Your task to perform on an android device: Play the last video I watched on Youtube Image 0: 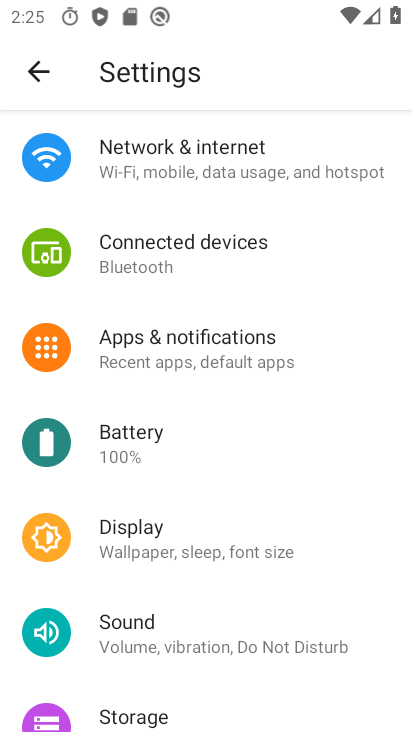
Step 0: press home button
Your task to perform on an android device: Play the last video I watched on Youtube Image 1: 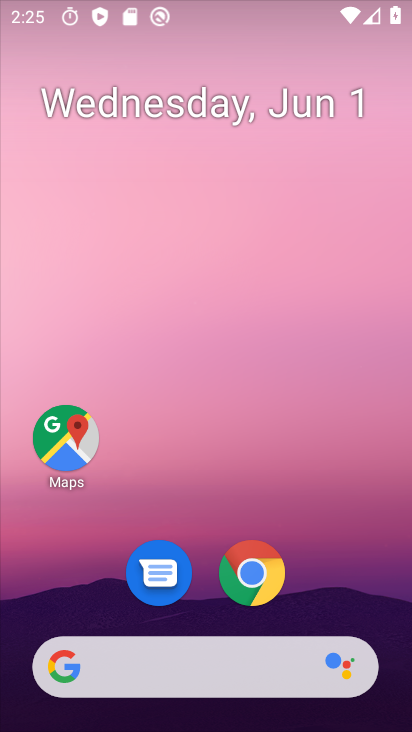
Step 1: drag from (192, 600) to (195, 147)
Your task to perform on an android device: Play the last video I watched on Youtube Image 2: 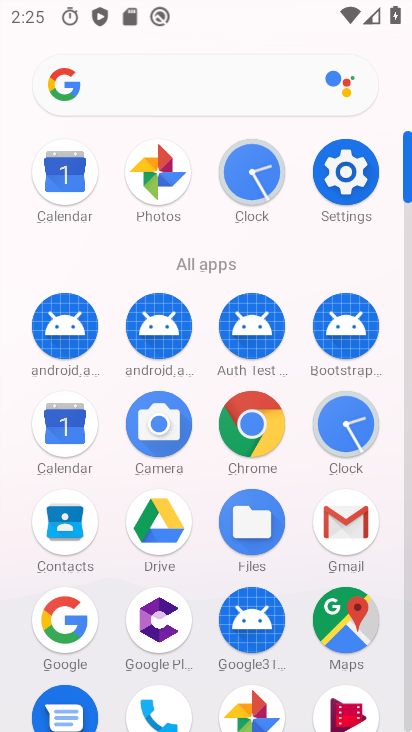
Step 2: drag from (215, 597) to (237, 245)
Your task to perform on an android device: Play the last video I watched on Youtube Image 3: 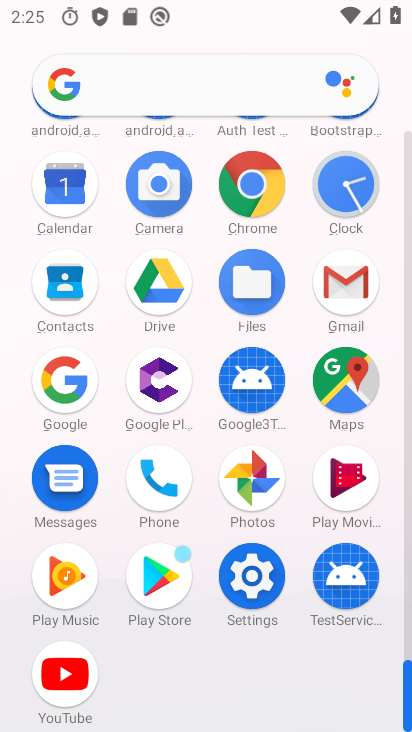
Step 3: click (76, 671)
Your task to perform on an android device: Play the last video I watched on Youtube Image 4: 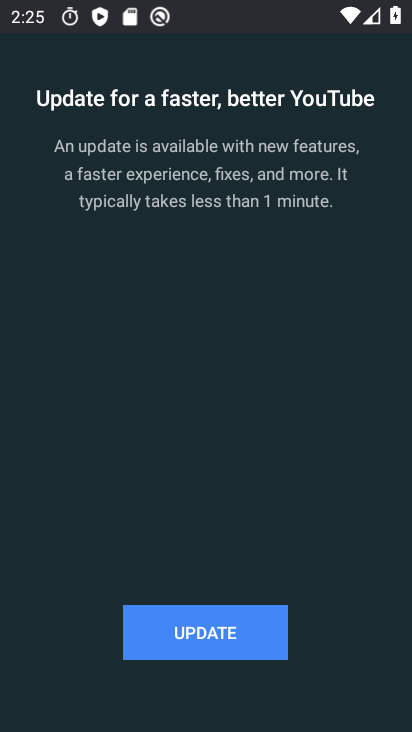
Step 4: click (164, 634)
Your task to perform on an android device: Play the last video I watched on Youtube Image 5: 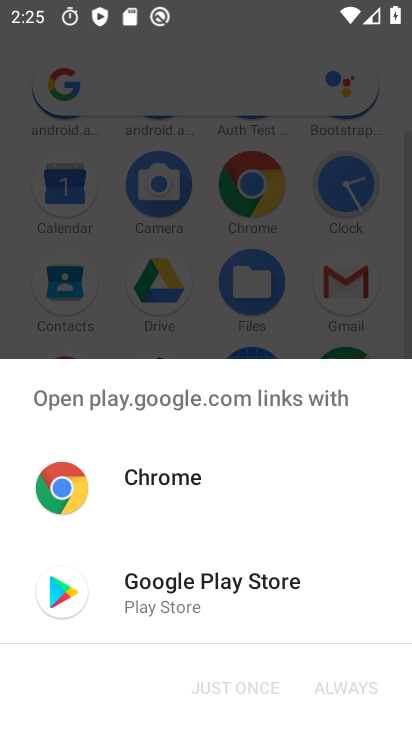
Step 5: click (199, 568)
Your task to perform on an android device: Play the last video I watched on Youtube Image 6: 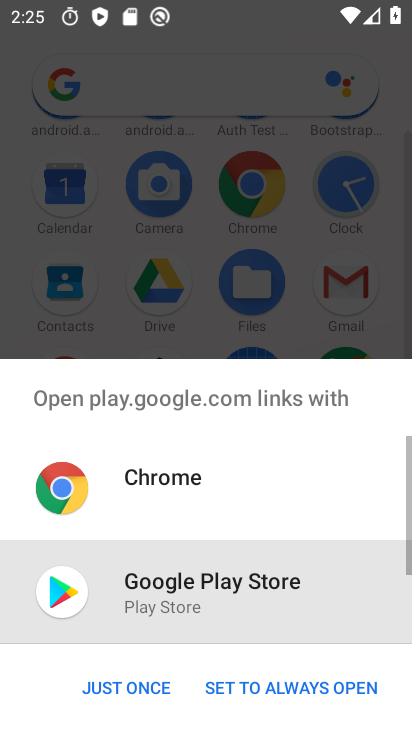
Step 6: click (125, 678)
Your task to perform on an android device: Play the last video I watched on Youtube Image 7: 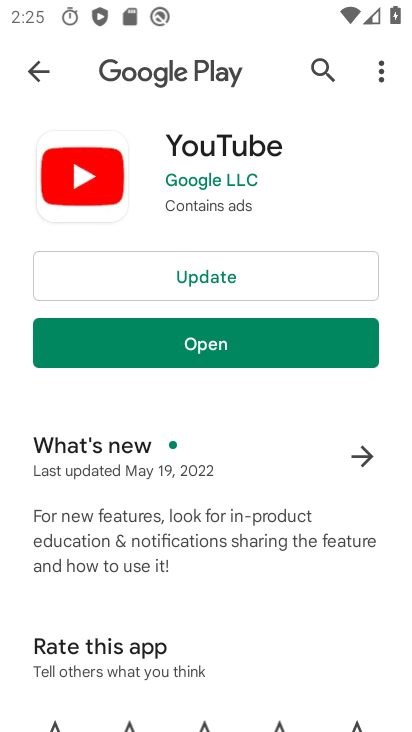
Step 7: click (243, 280)
Your task to perform on an android device: Play the last video I watched on Youtube Image 8: 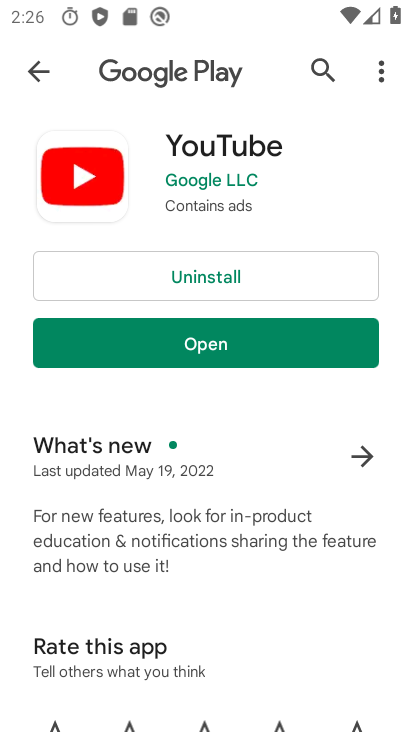
Step 8: click (182, 339)
Your task to perform on an android device: Play the last video I watched on Youtube Image 9: 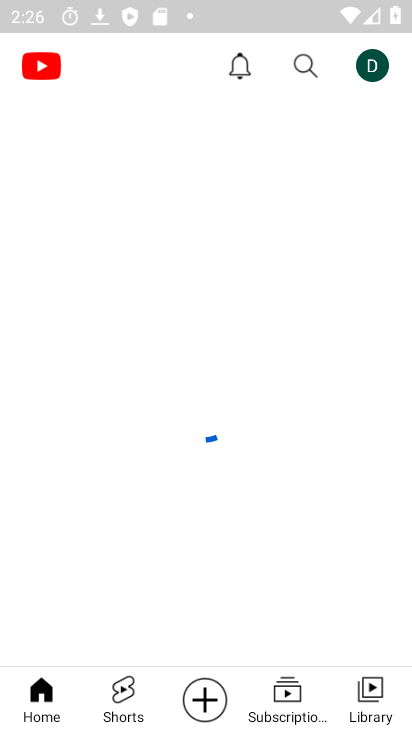
Step 9: click (359, 691)
Your task to perform on an android device: Play the last video I watched on Youtube Image 10: 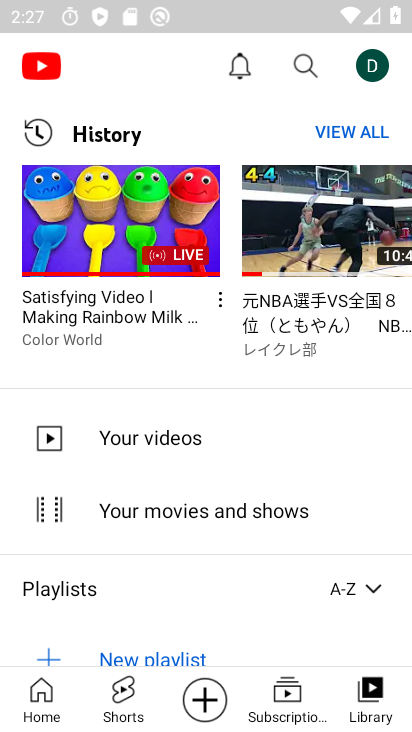
Step 10: click (74, 248)
Your task to perform on an android device: Play the last video I watched on Youtube Image 11: 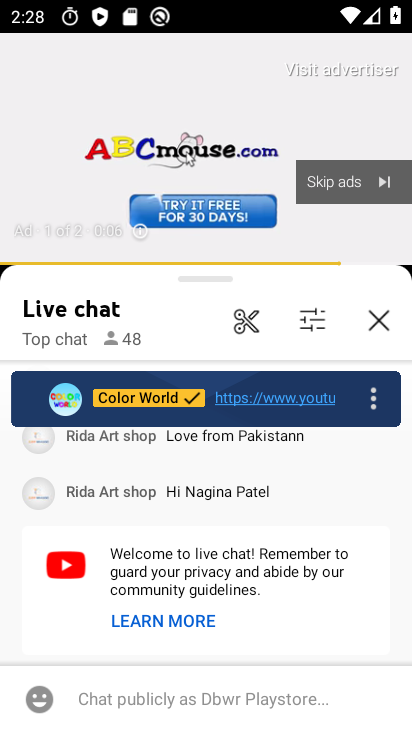
Step 11: click (341, 189)
Your task to perform on an android device: Play the last video I watched on Youtube Image 12: 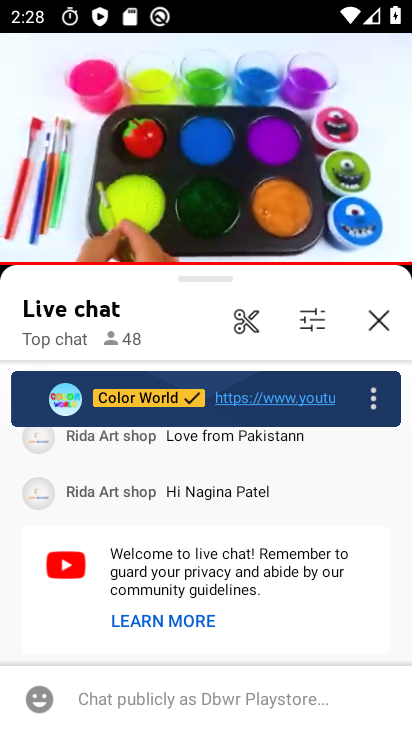
Step 12: drag from (322, 174) to (313, 223)
Your task to perform on an android device: Play the last video I watched on Youtube Image 13: 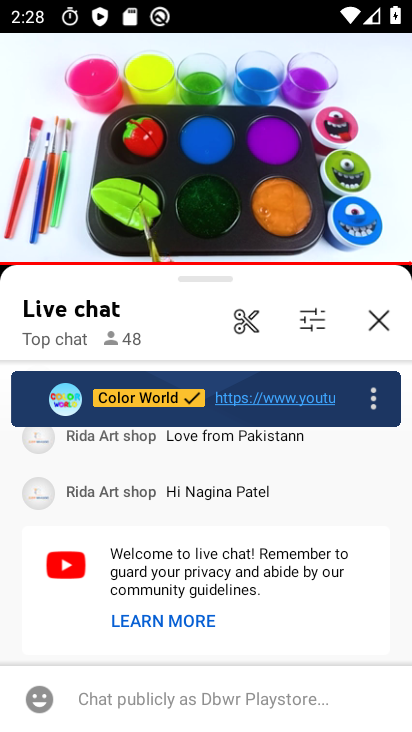
Step 13: click (367, 311)
Your task to perform on an android device: Play the last video I watched on Youtube Image 14: 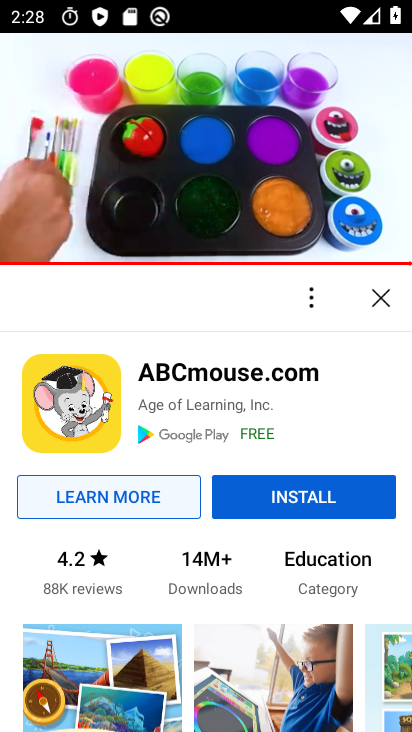
Step 14: click (380, 294)
Your task to perform on an android device: Play the last video I watched on Youtube Image 15: 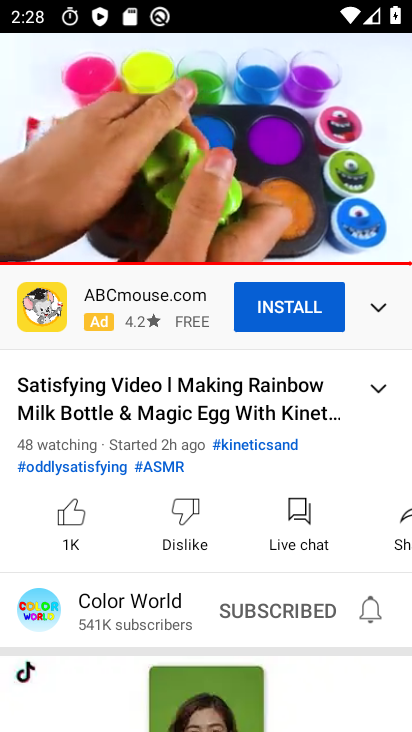
Step 15: task complete